Your task to perform on an android device: Open Wikipedia Image 0: 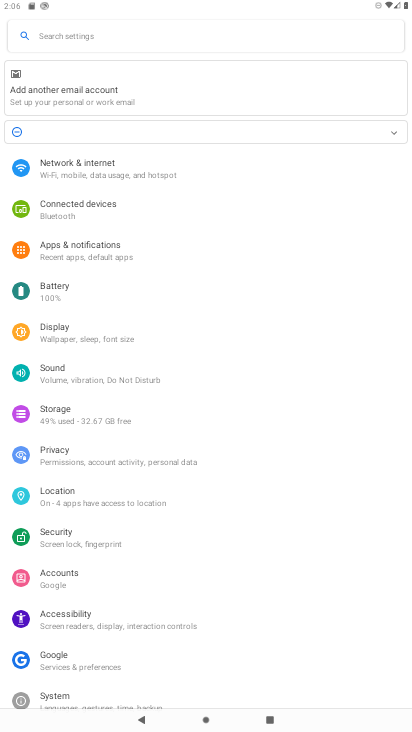
Step 0: press home button
Your task to perform on an android device: Open Wikipedia Image 1: 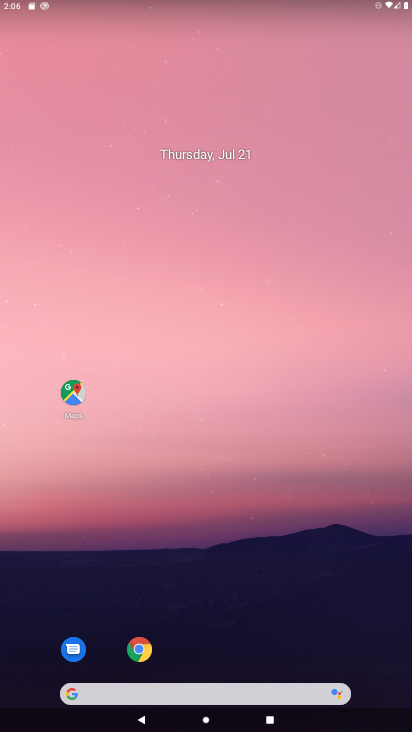
Step 1: drag from (254, 611) to (218, 0)
Your task to perform on an android device: Open Wikipedia Image 2: 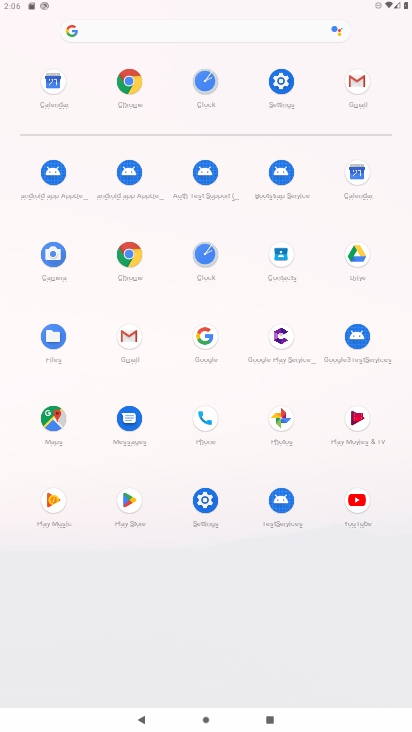
Step 2: click (128, 82)
Your task to perform on an android device: Open Wikipedia Image 3: 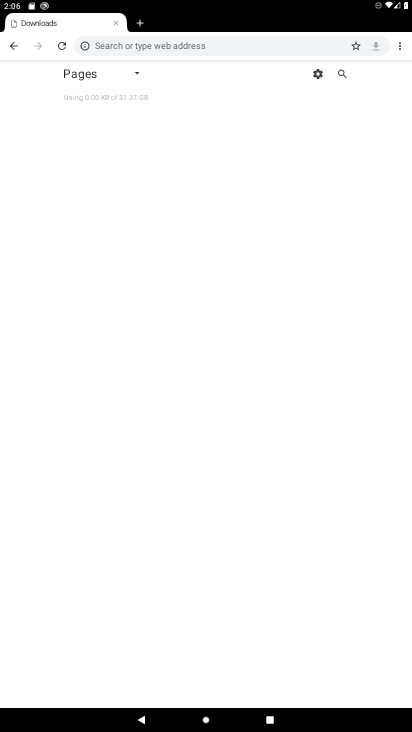
Step 3: click (137, 28)
Your task to perform on an android device: Open Wikipedia Image 4: 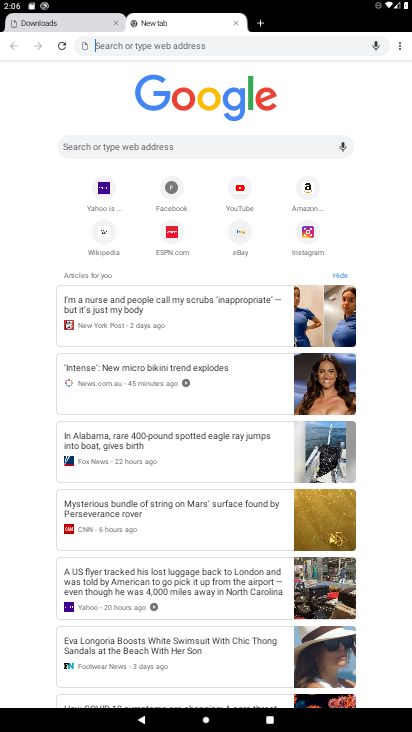
Step 4: click (86, 244)
Your task to perform on an android device: Open Wikipedia Image 5: 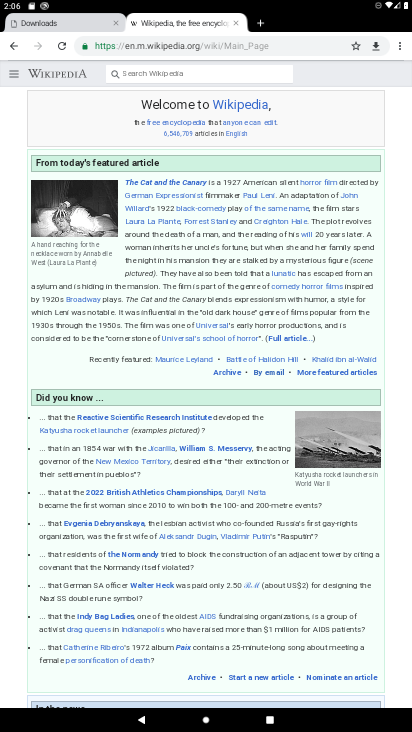
Step 5: task complete